Your task to perform on an android device: Go to settings Image 0: 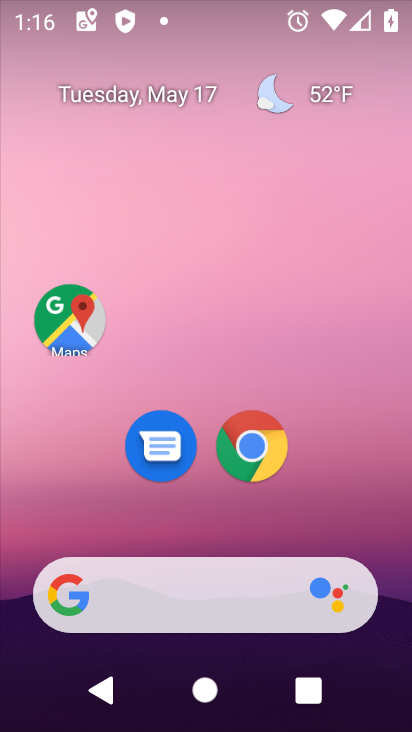
Step 0: drag from (239, 534) to (253, 327)
Your task to perform on an android device: Go to settings Image 1: 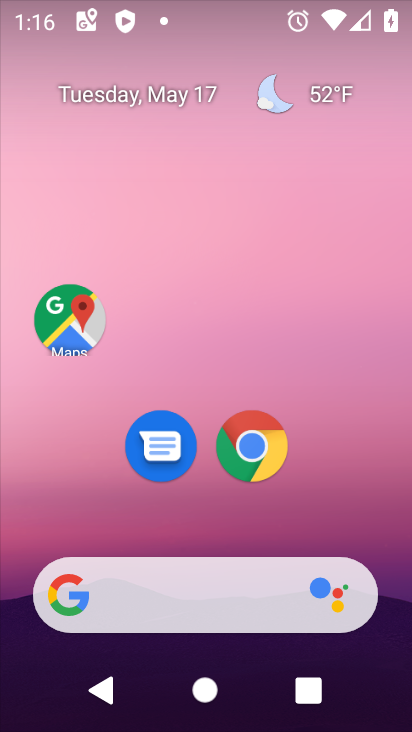
Step 1: drag from (156, 582) to (177, 372)
Your task to perform on an android device: Go to settings Image 2: 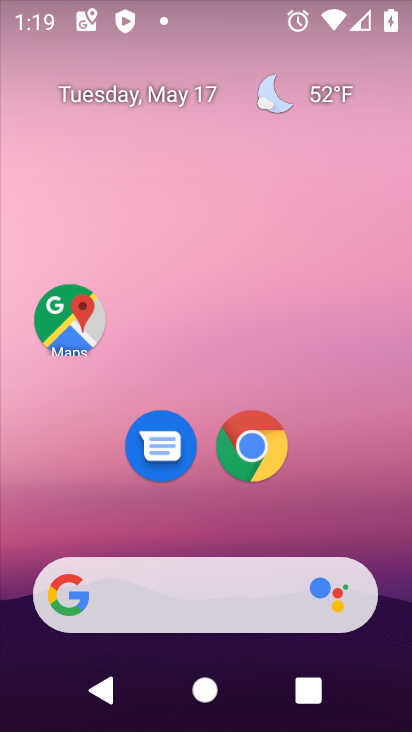
Step 2: drag from (202, 544) to (237, 220)
Your task to perform on an android device: Go to settings Image 3: 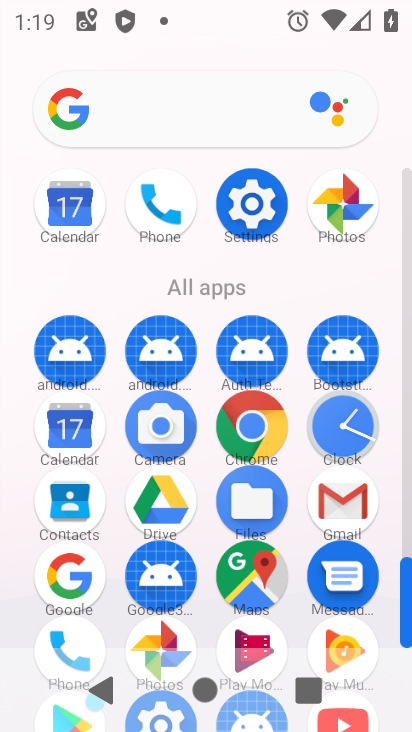
Step 3: click (250, 208)
Your task to perform on an android device: Go to settings Image 4: 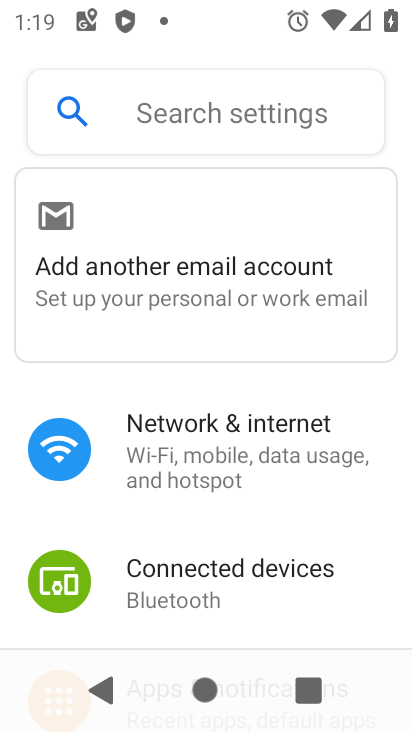
Step 4: task complete